Your task to perform on an android device: open app "Chime – Mobile Banking" Image 0: 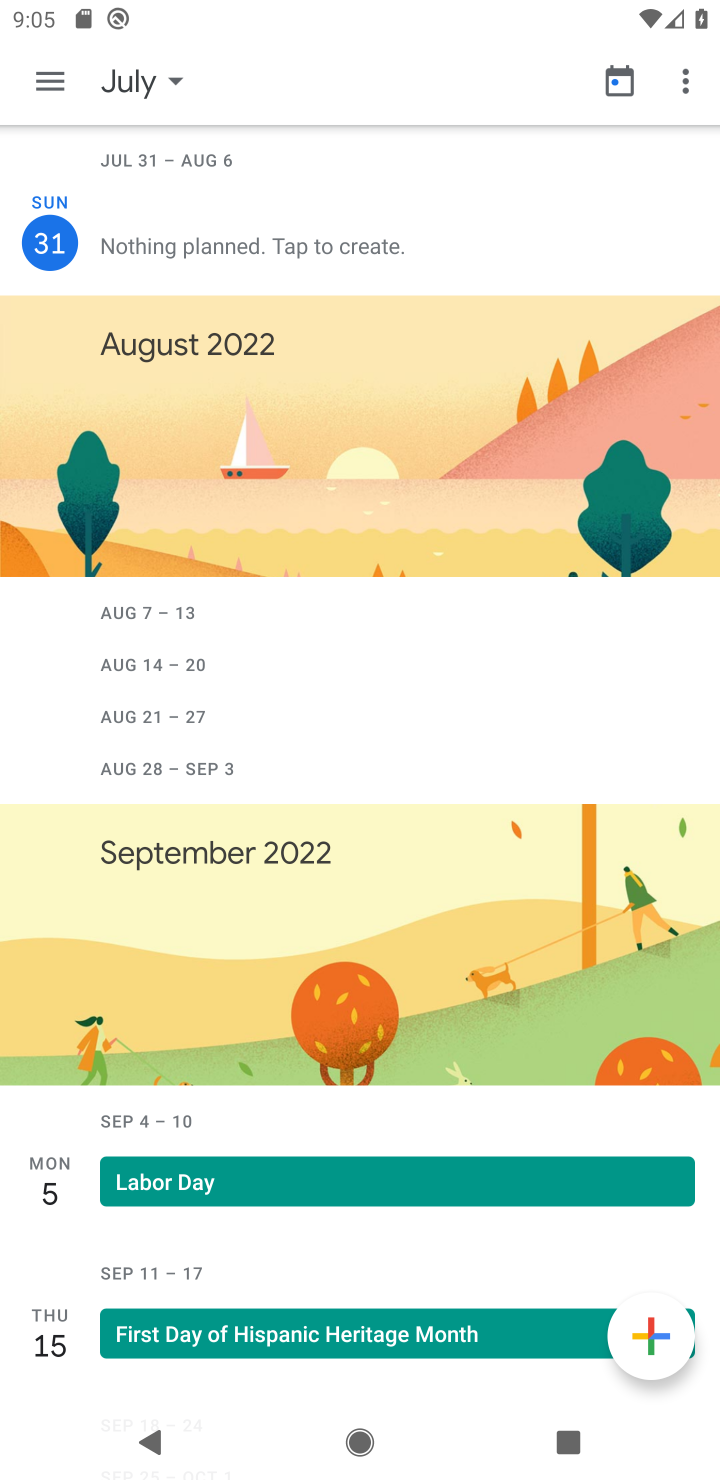
Step 0: press home button
Your task to perform on an android device: open app "Chime – Mobile Banking" Image 1: 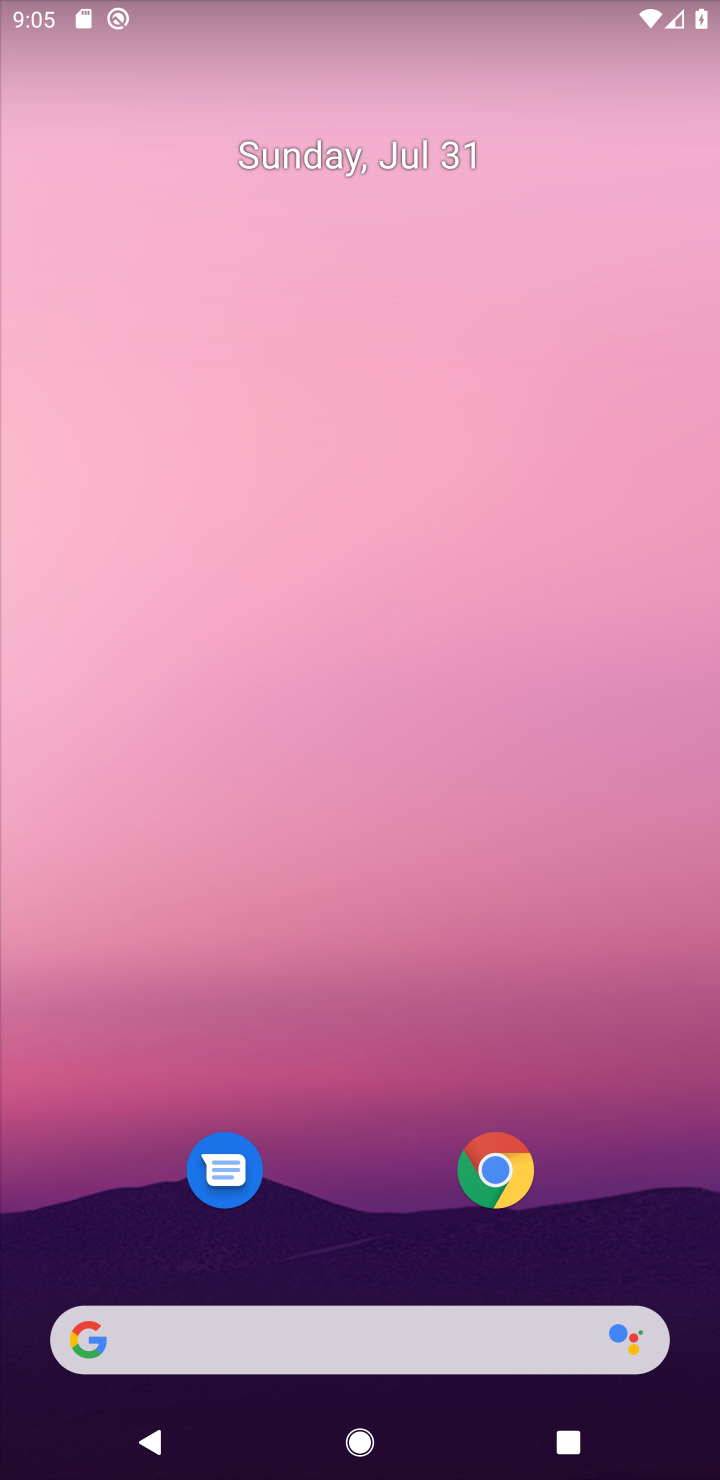
Step 1: drag from (613, 1251) to (358, 31)
Your task to perform on an android device: open app "Chime – Mobile Banking" Image 2: 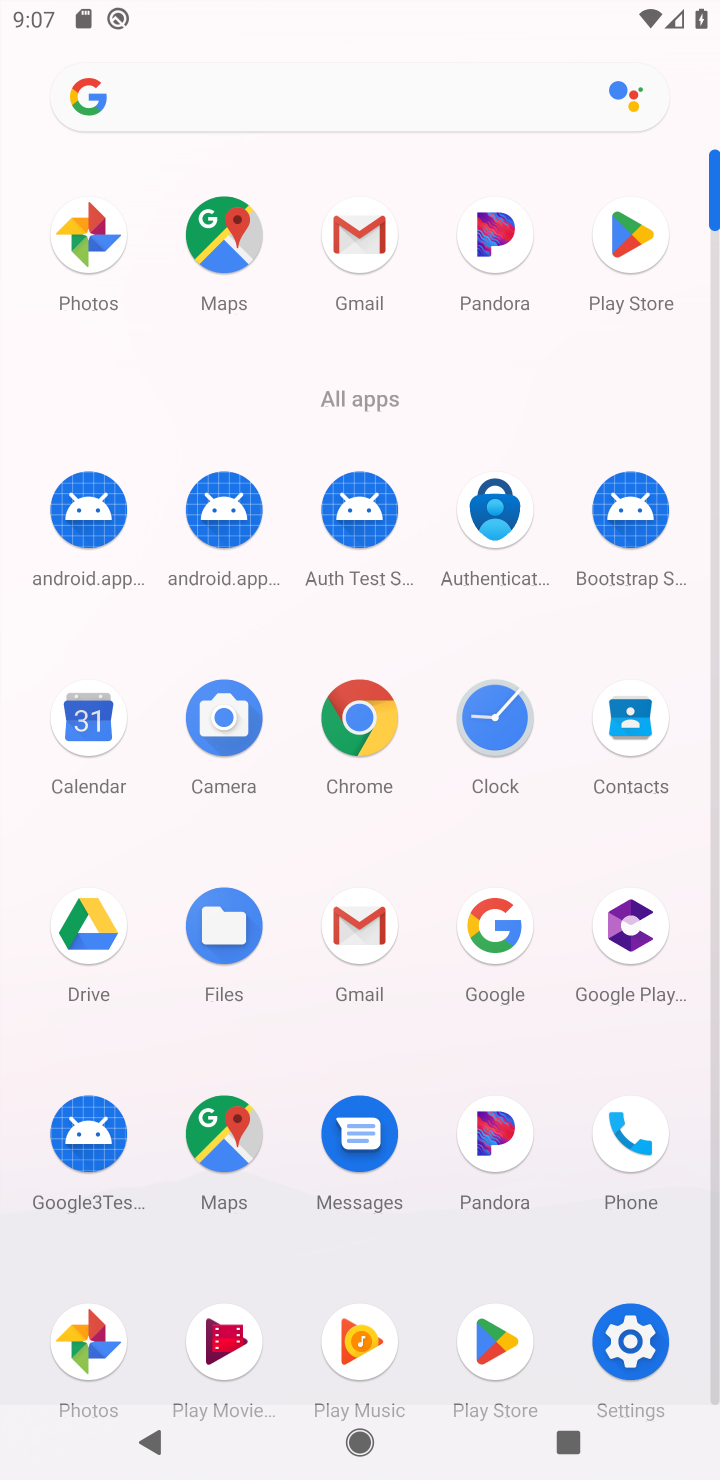
Step 2: click (645, 229)
Your task to perform on an android device: open app "Chime – Mobile Banking" Image 3: 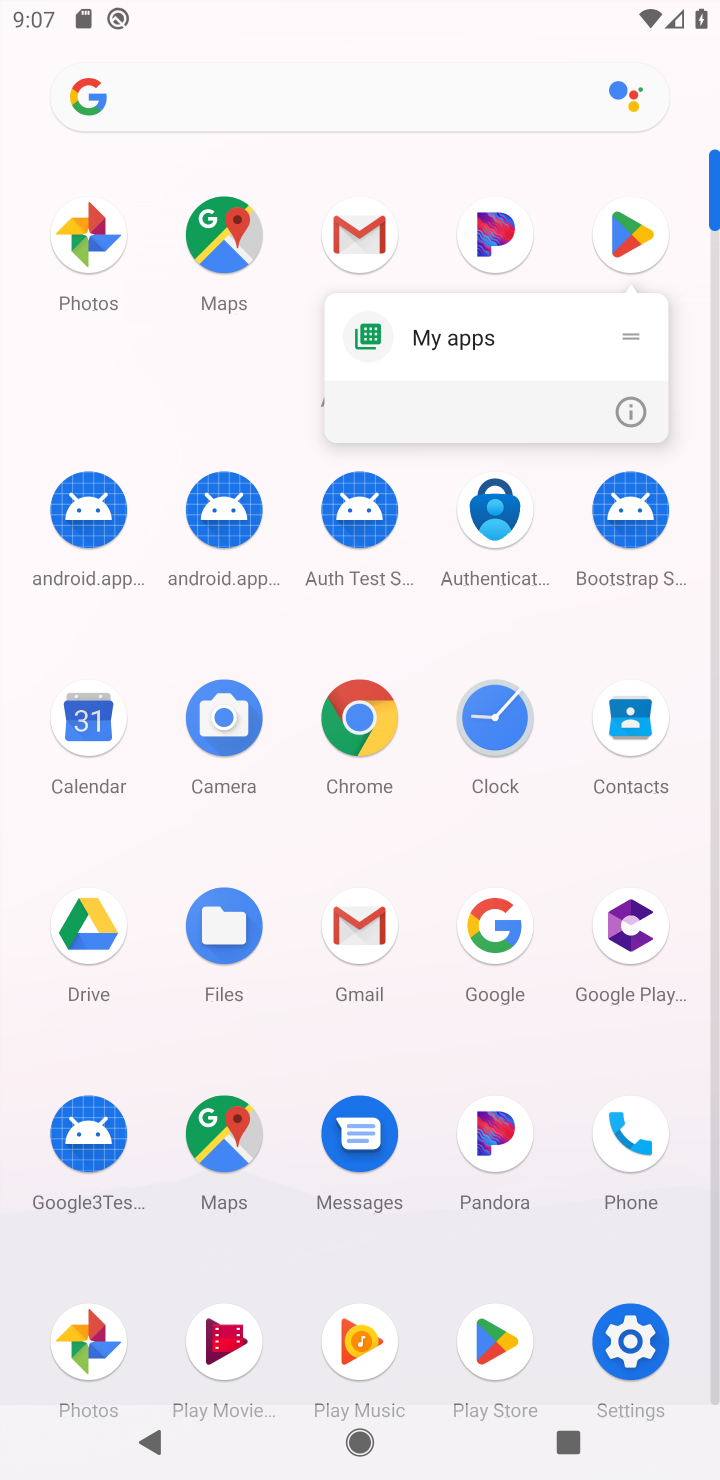
Step 3: click (677, 228)
Your task to perform on an android device: open app "Chime – Mobile Banking" Image 4: 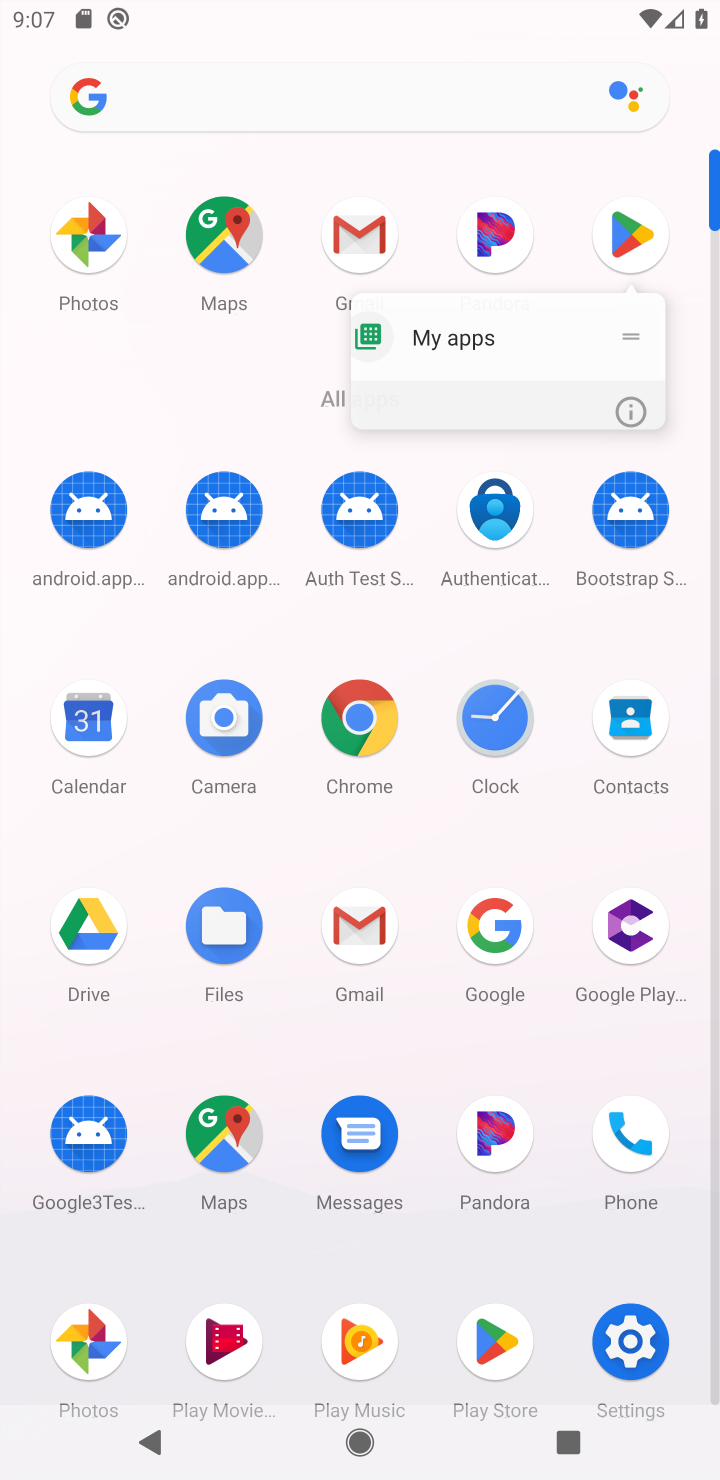
Step 4: click (639, 234)
Your task to perform on an android device: open app "Chime – Mobile Banking" Image 5: 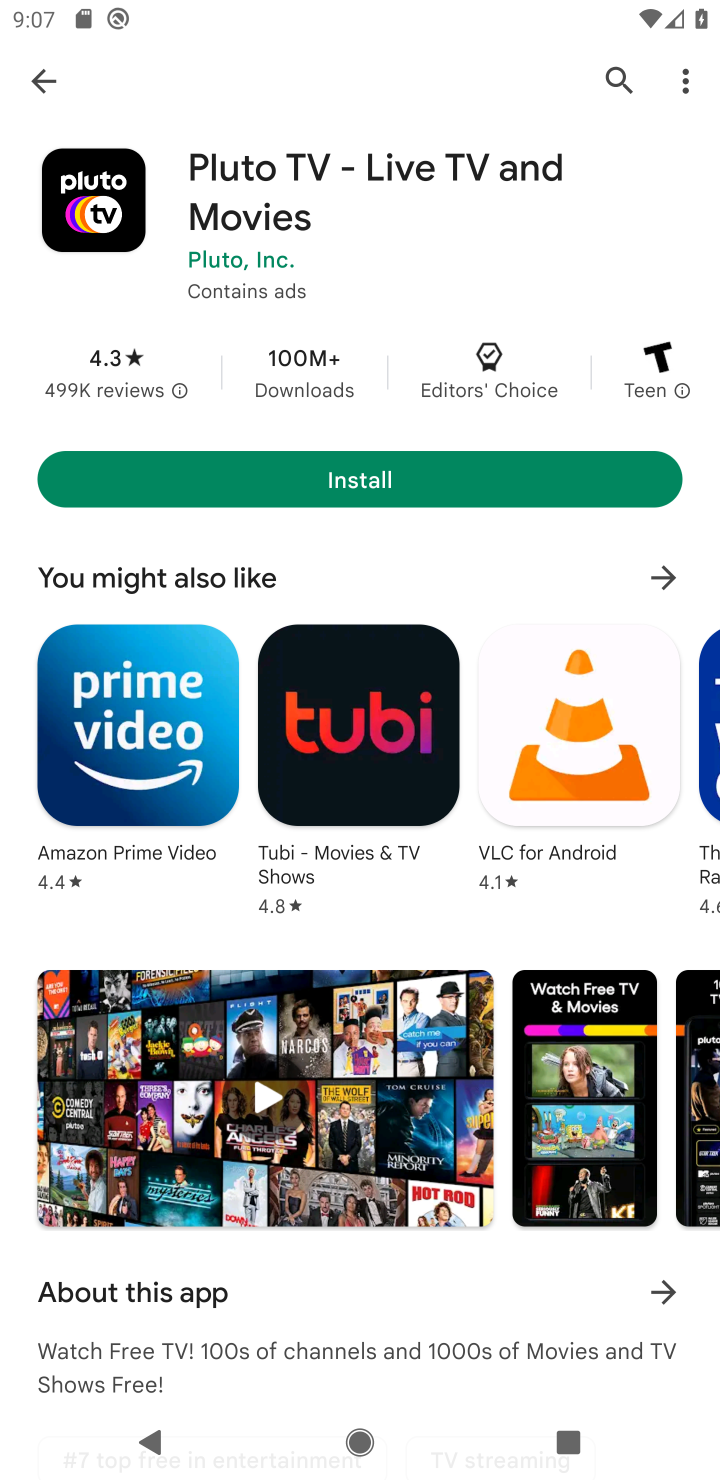
Step 5: press back button
Your task to perform on an android device: open app "Chime – Mobile Banking" Image 6: 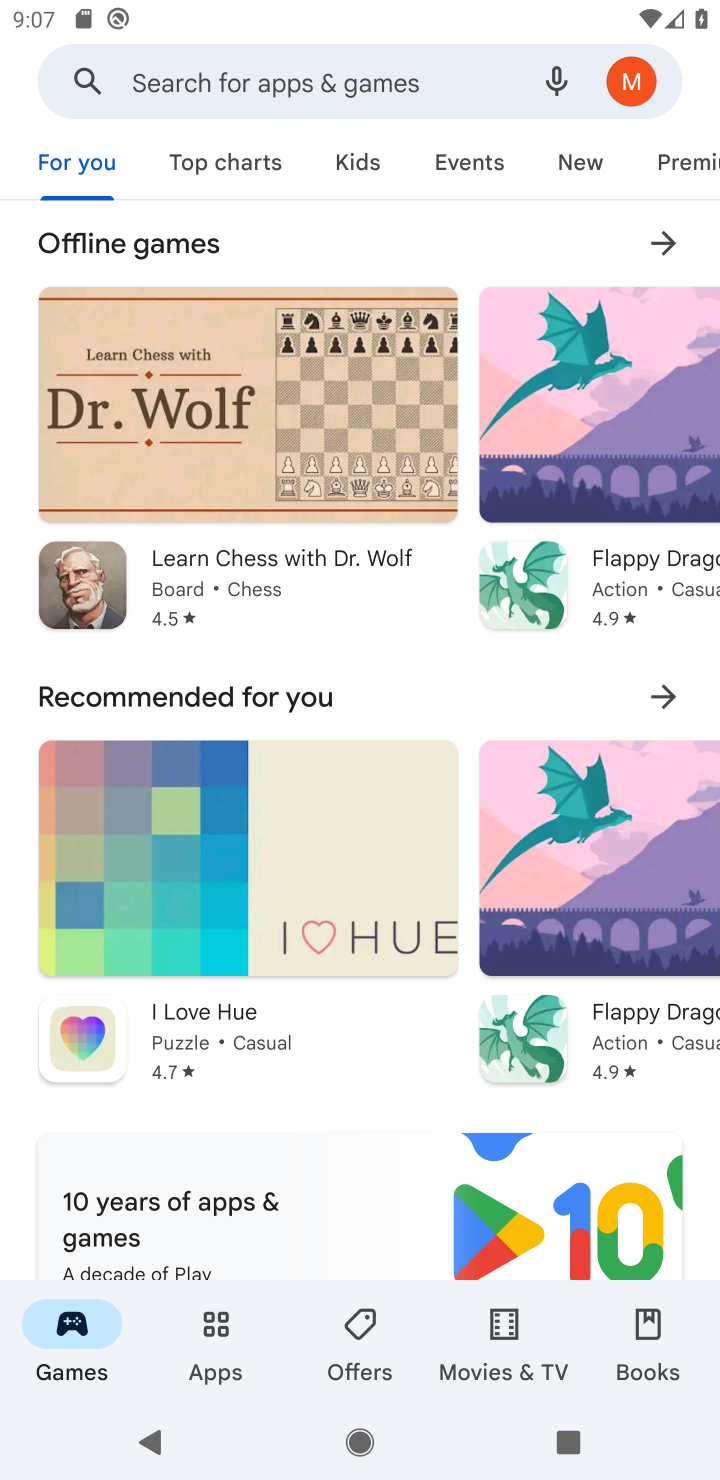
Step 6: click (180, 86)
Your task to perform on an android device: open app "Chime – Mobile Banking" Image 7: 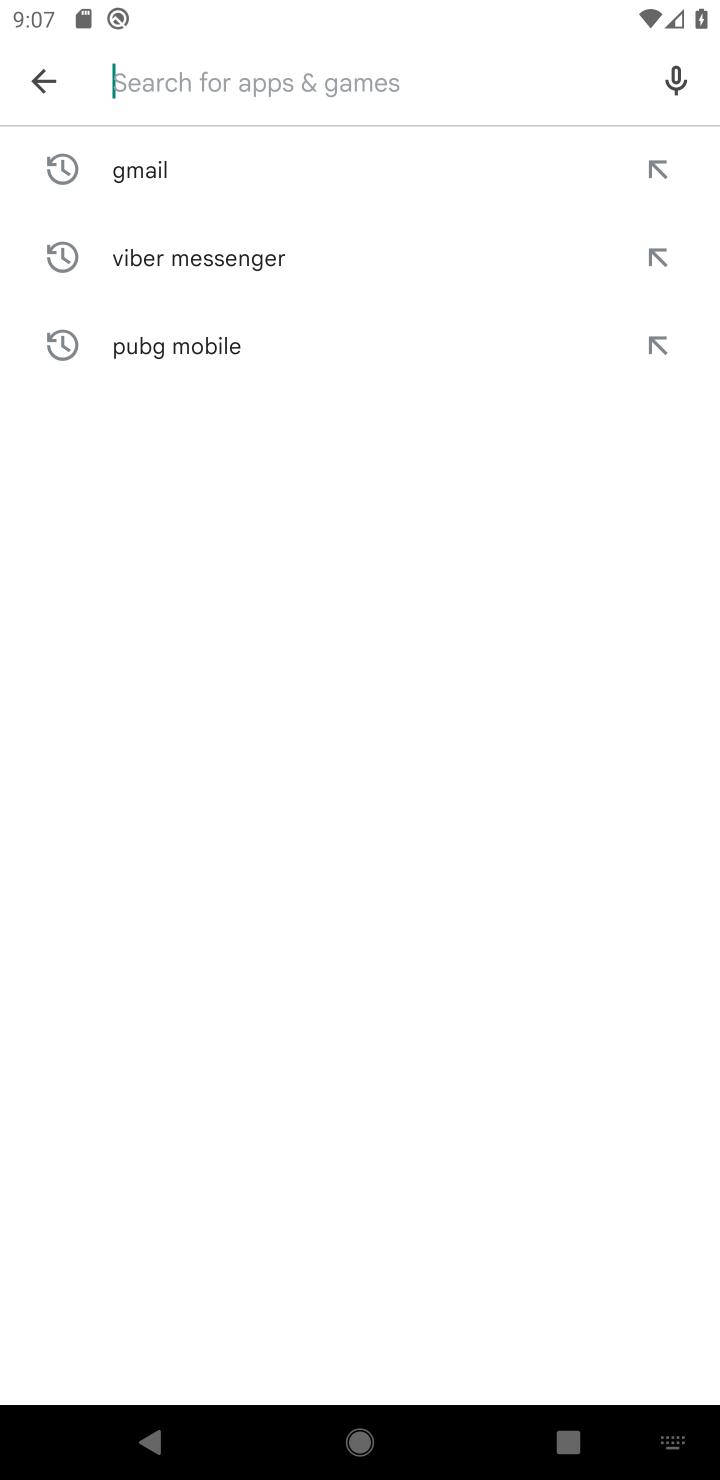
Step 7: type "Chime – Mobile Banking"
Your task to perform on an android device: open app "Chime – Mobile Banking" Image 8: 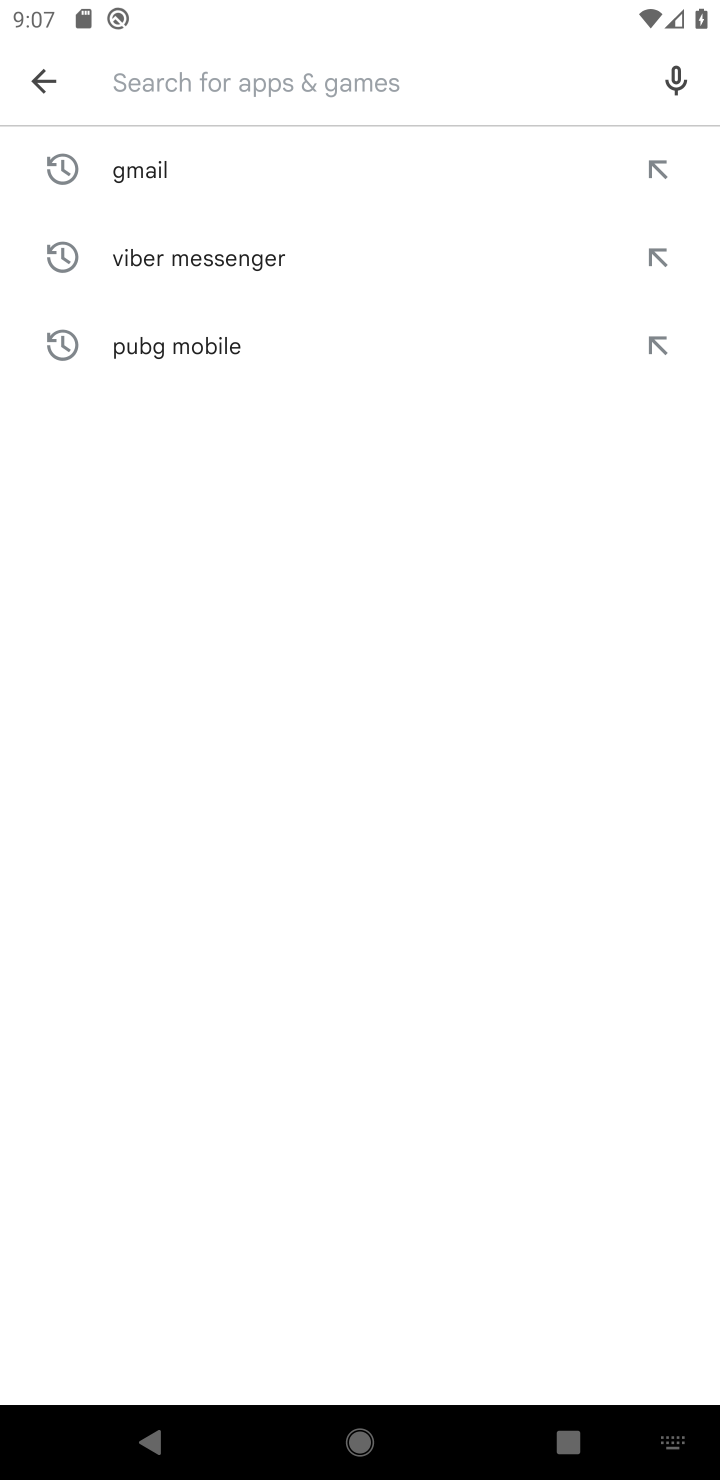
Step 8: type "Chime – Mobile Banking"
Your task to perform on an android device: open app "Chime – Mobile Banking" Image 9: 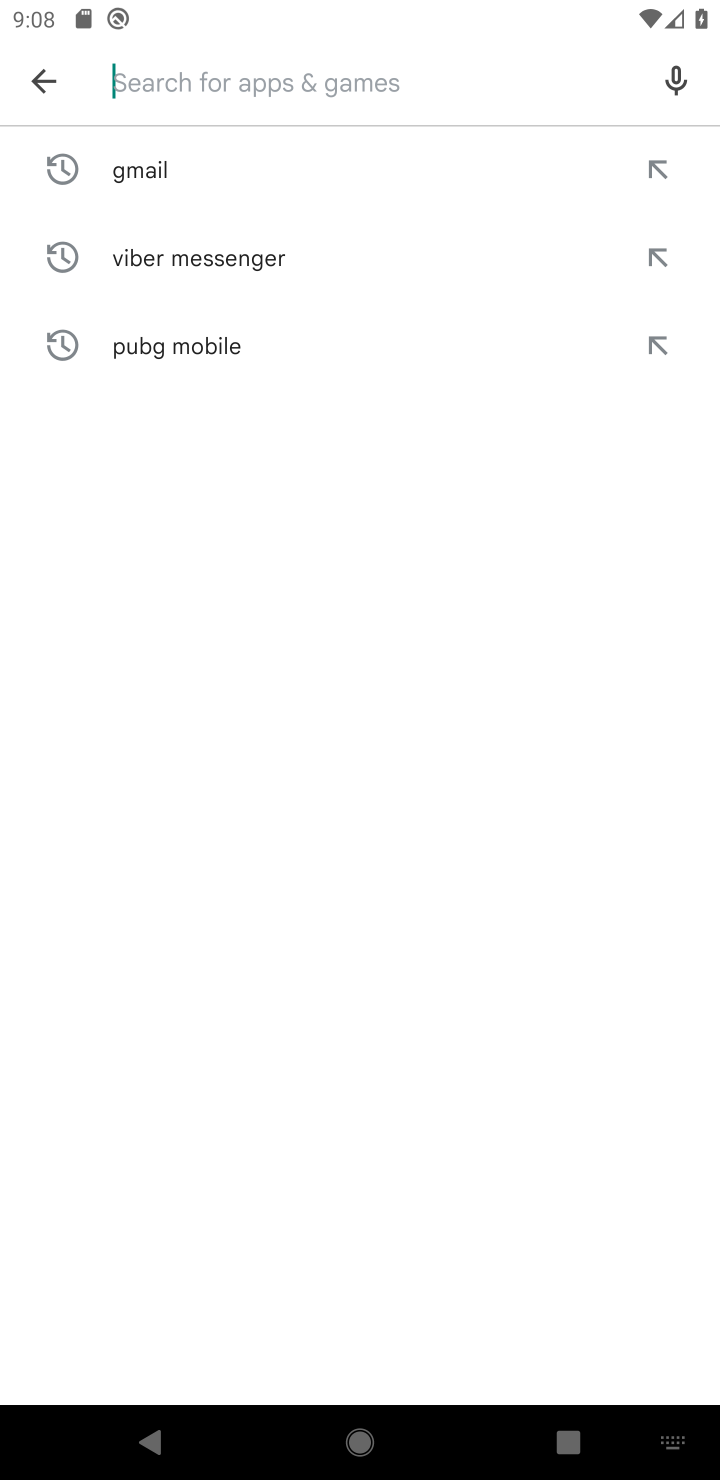
Step 9: task complete